Your task to perform on an android device: delete the emails in spam in the gmail app Image 0: 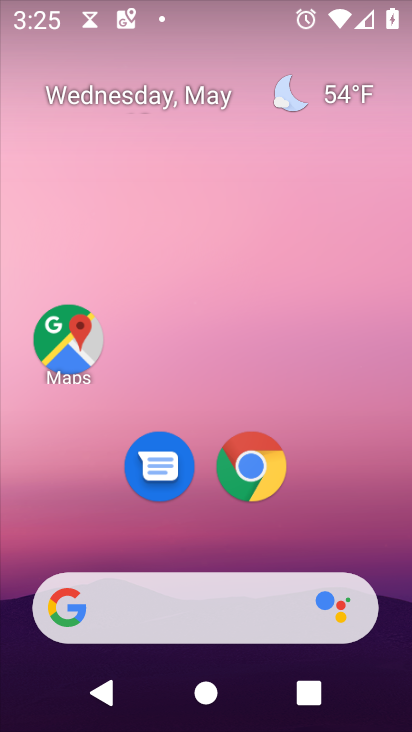
Step 0: drag from (360, 514) to (366, 154)
Your task to perform on an android device: delete the emails in spam in the gmail app Image 1: 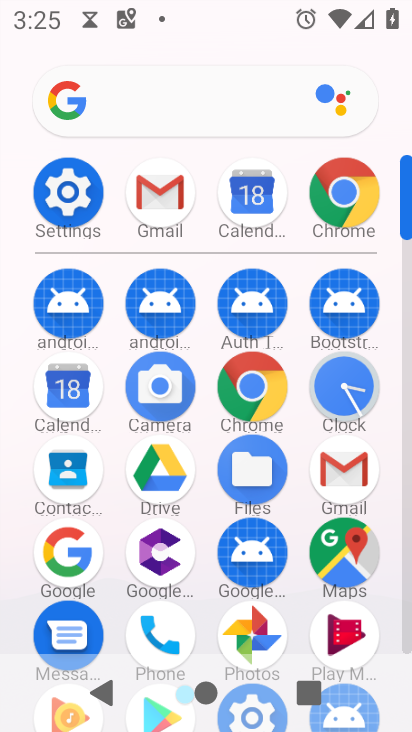
Step 1: click (173, 190)
Your task to perform on an android device: delete the emails in spam in the gmail app Image 2: 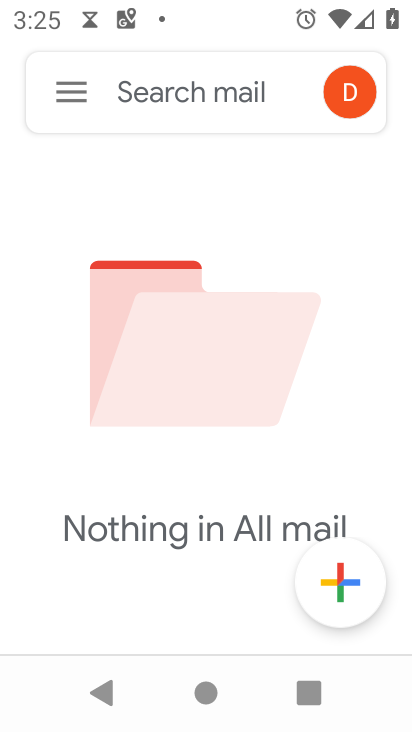
Step 2: click (83, 112)
Your task to perform on an android device: delete the emails in spam in the gmail app Image 3: 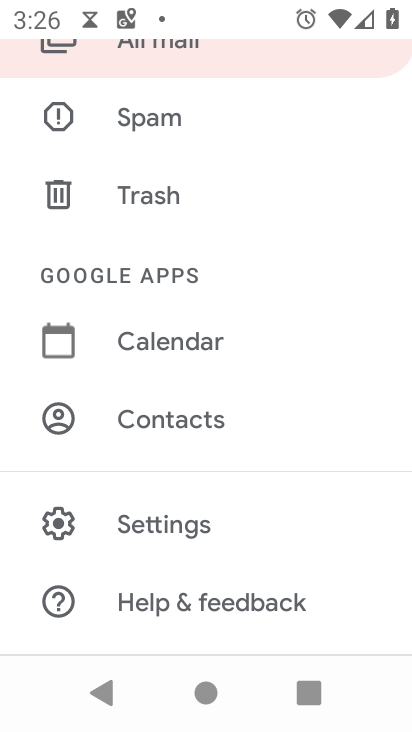
Step 3: click (83, 112)
Your task to perform on an android device: delete the emails in spam in the gmail app Image 4: 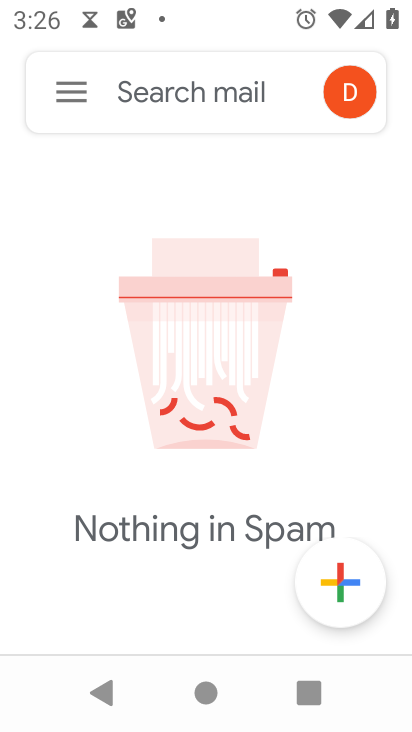
Step 4: task complete